Your task to perform on an android device: toggle notifications settings in the gmail app Image 0: 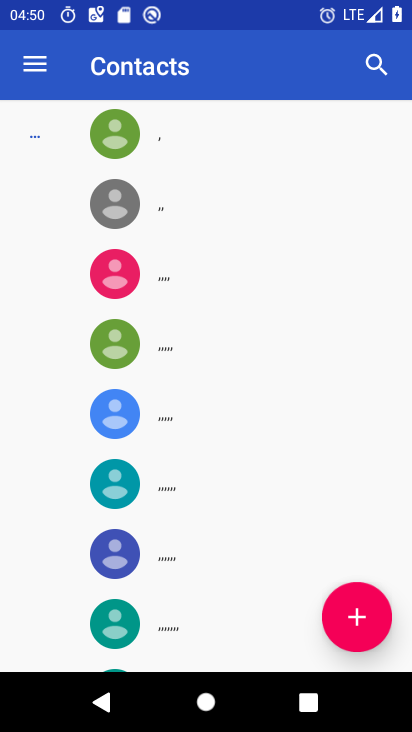
Step 0: press home button
Your task to perform on an android device: toggle notifications settings in the gmail app Image 1: 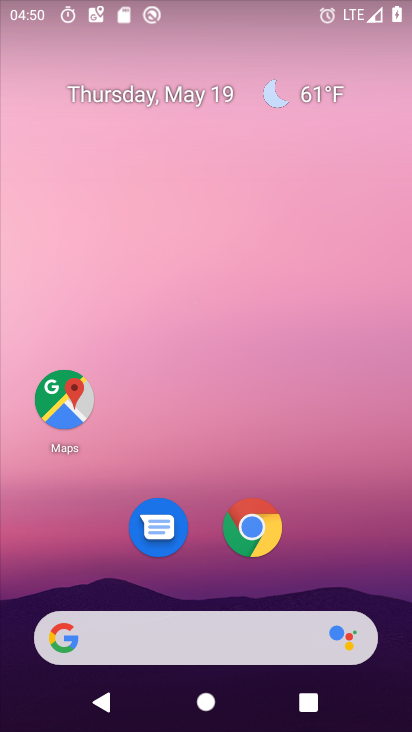
Step 1: drag from (218, 581) to (269, 18)
Your task to perform on an android device: toggle notifications settings in the gmail app Image 2: 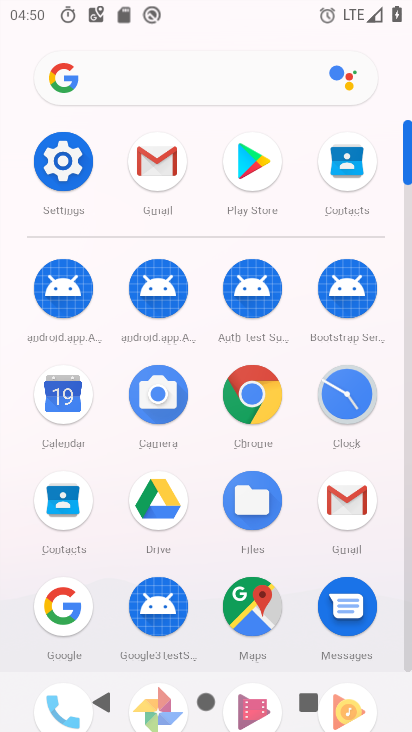
Step 2: click (162, 160)
Your task to perform on an android device: toggle notifications settings in the gmail app Image 3: 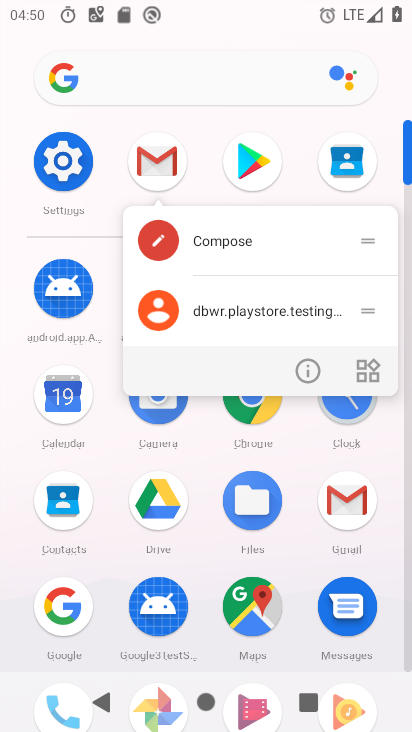
Step 3: click (157, 162)
Your task to perform on an android device: toggle notifications settings in the gmail app Image 4: 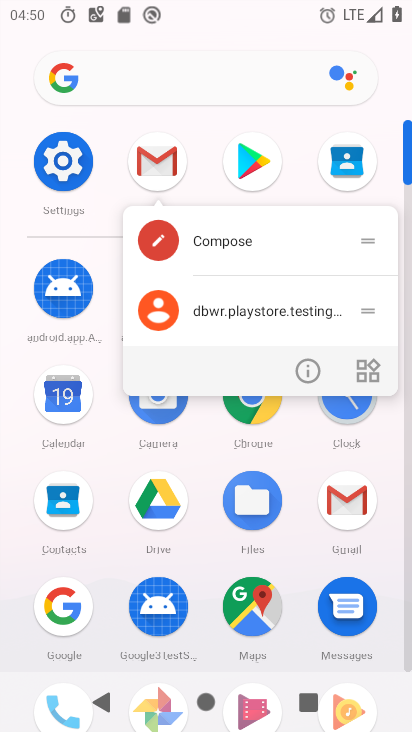
Step 4: click (294, 367)
Your task to perform on an android device: toggle notifications settings in the gmail app Image 5: 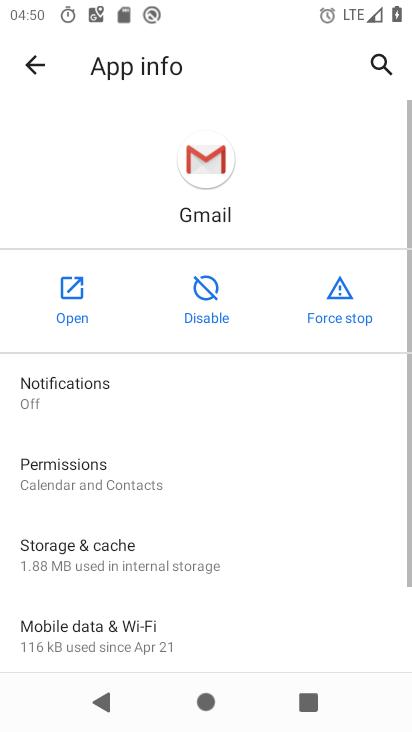
Step 5: click (41, 399)
Your task to perform on an android device: toggle notifications settings in the gmail app Image 6: 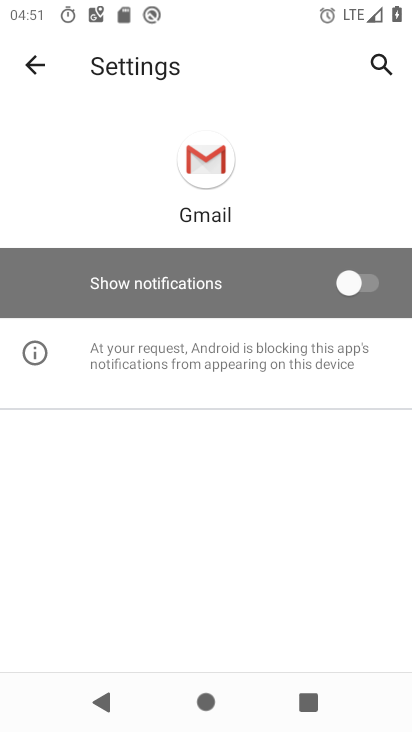
Step 6: click (340, 276)
Your task to perform on an android device: toggle notifications settings in the gmail app Image 7: 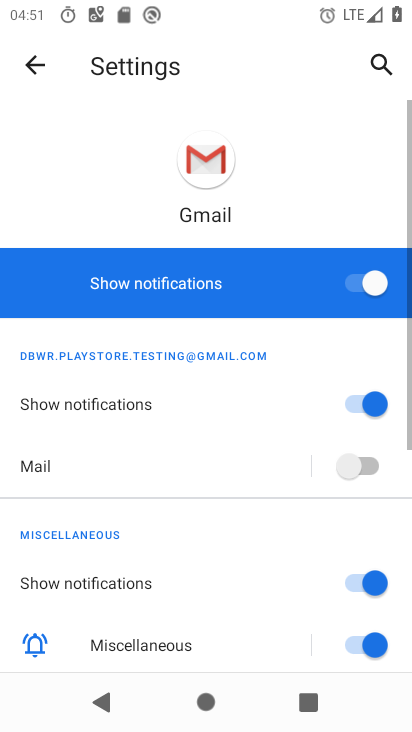
Step 7: task complete